Your task to perform on an android device: turn off improve location accuracy Image 0: 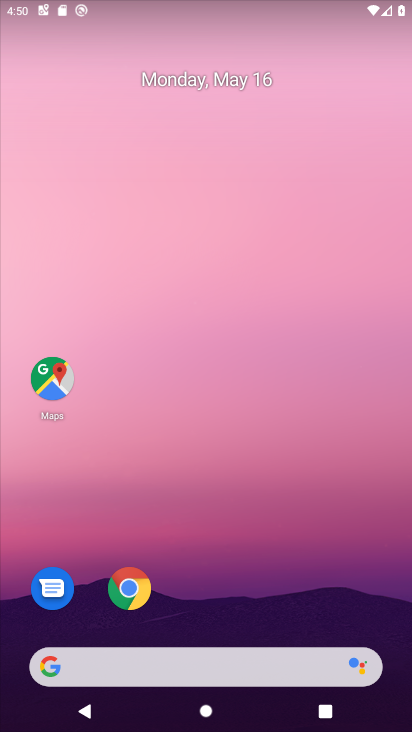
Step 0: drag from (280, 594) to (210, 91)
Your task to perform on an android device: turn off improve location accuracy Image 1: 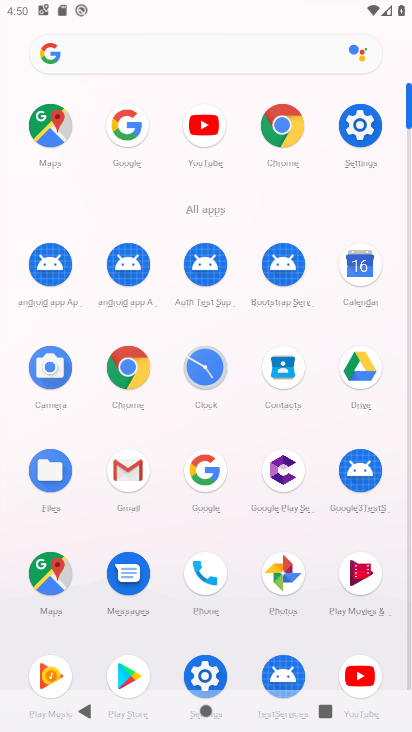
Step 1: click (211, 668)
Your task to perform on an android device: turn off improve location accuracy Image 2: 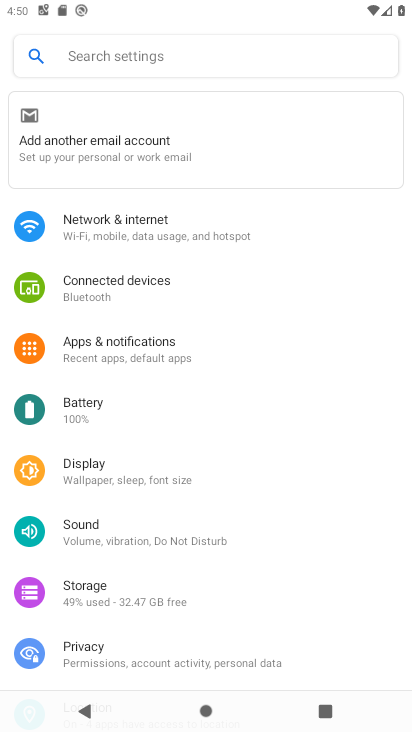
Step 2: drag from (180, 605) to (151, 280)
Your task to perform on an android device: turn off improve location accuracy Image 3: 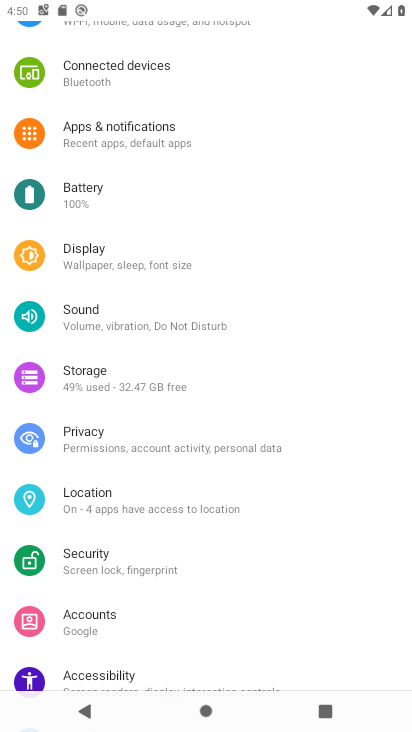
Step 3: click (152, 497)
Your task to perform on an android device: turn off improve location accuracy Image 4: 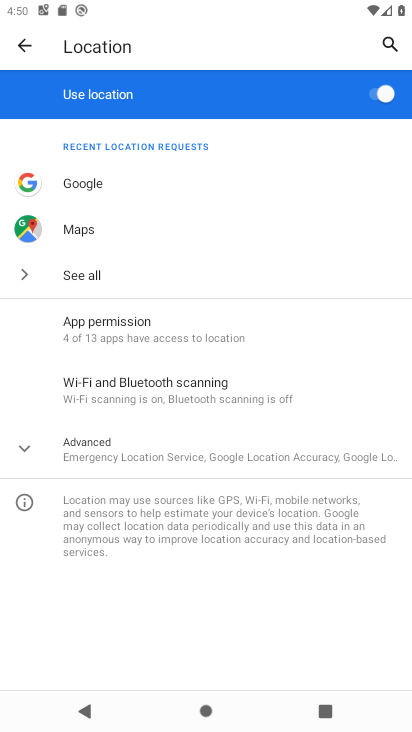
Step 4: click (159, 446)
Your task to perform on an android device: turn off improve location accuracy Image 5: 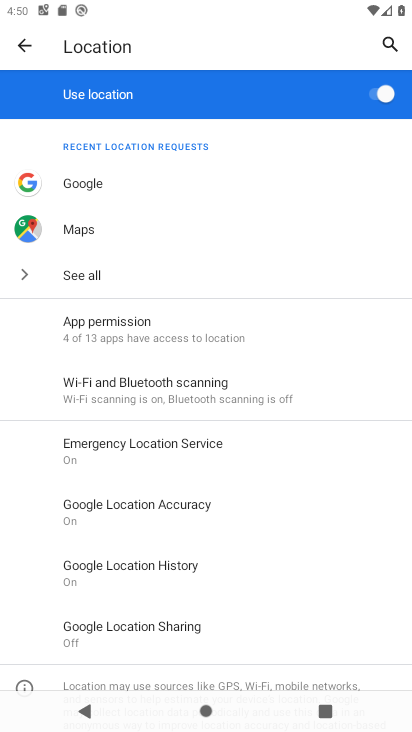
Step 5: click (162, 508)
Your task to perform on an android device: turn off improve location accuracy Image 6: 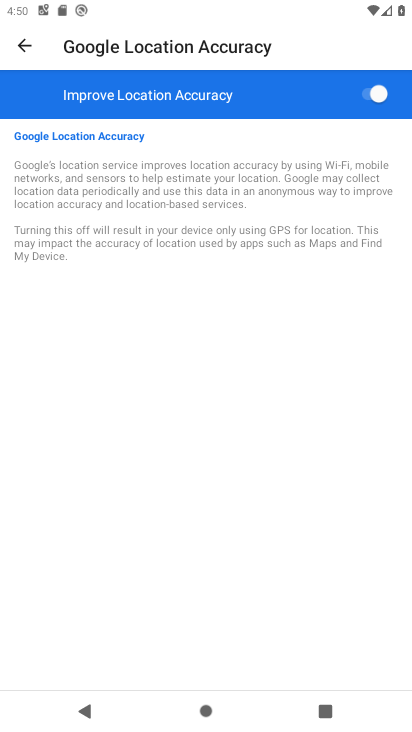
Step 6: click (366, 103)
Your task to perform on an android device: turn off improve location accuracy Image 7: 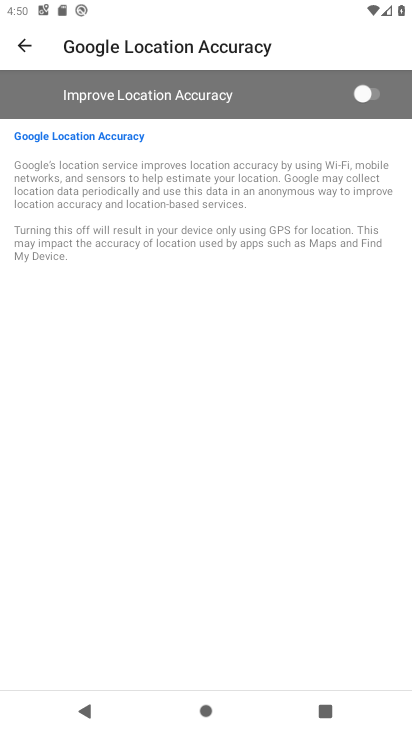
Step 7: task complete